Your task to perform on an android device: Search for seafood restaurants on Google Maps Image 0: 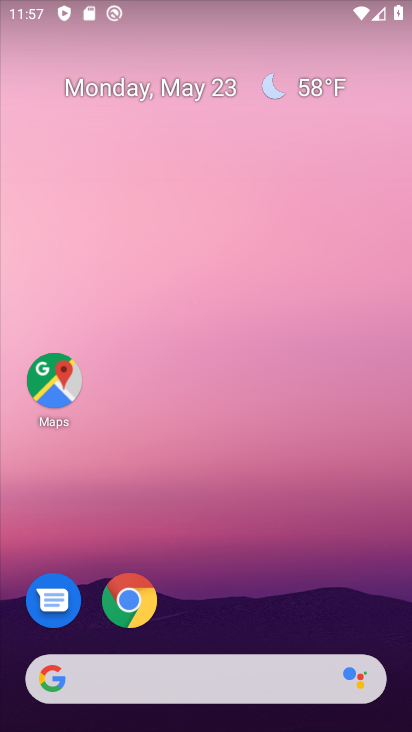
Step 0: click (46, 393)
Your task to perform on an android device: Search for seafood restaurants on Google Maps Image 1: 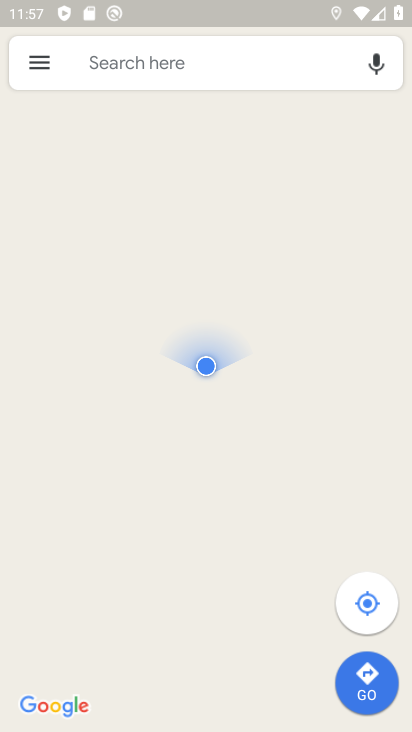
Step 1: click (137, 66)
Your task to perform on an android device: Search for seafood restaurants on Google Maps Image 2: 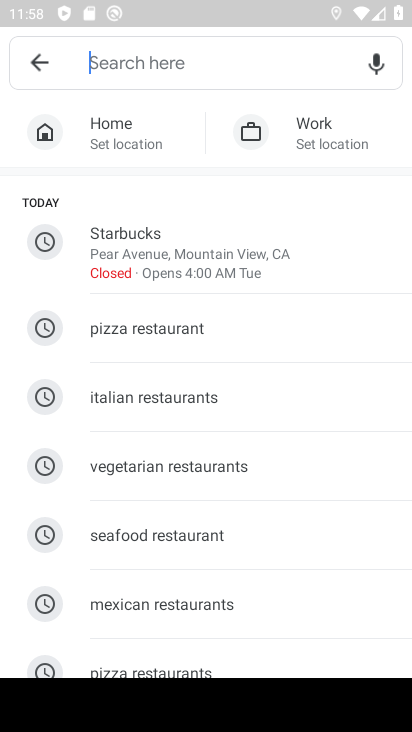
Step 2: type "seafood restaurants"
Your task to perform on an android device: Search for seafood restaurants on Google Maps Image 3: 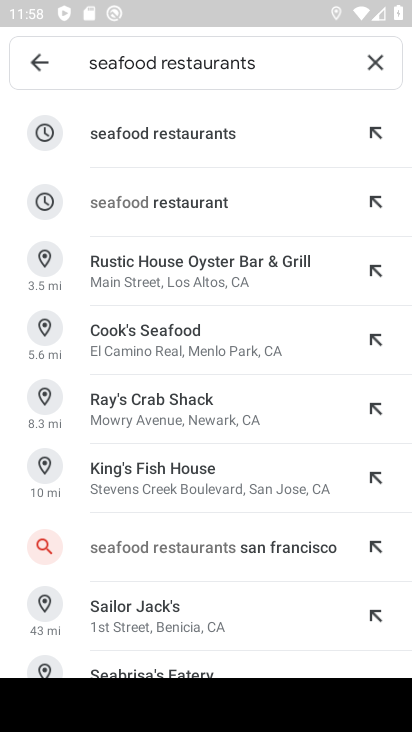
Step 3: click (211, 141)
Your task to perform on an android device: Search for seafood restaurants on Google Maps Image 4: 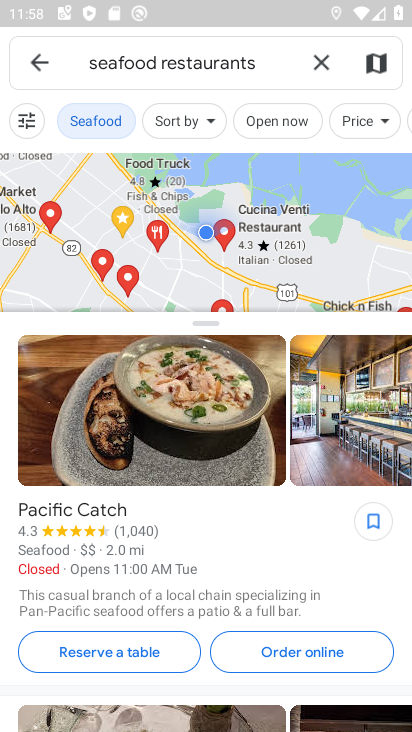
Step 4: task complete